Your task to perform on an android device: snooze an email in the gmail app Image 0: 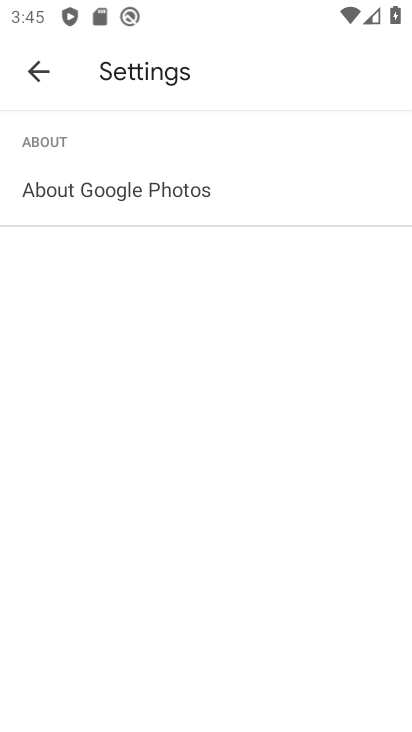
Step 0: press home button
Your task to perform on an android device: snooze an email in the gmail app Image 1: 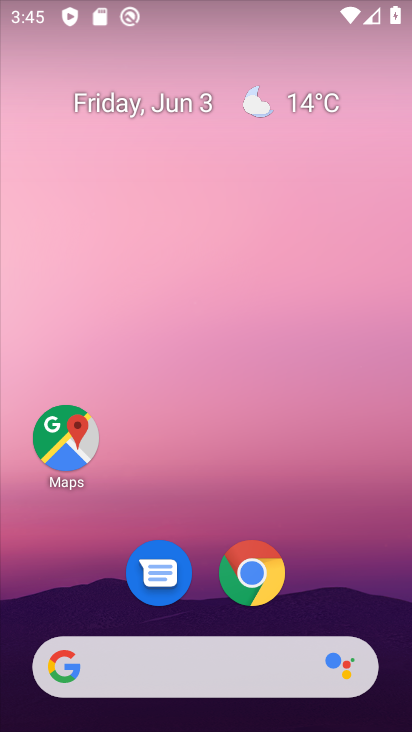
Step 1: drag from (205, 607) to (267, 7)
Your task to perform on an android device: snooze an email in the gmail app Image 2: 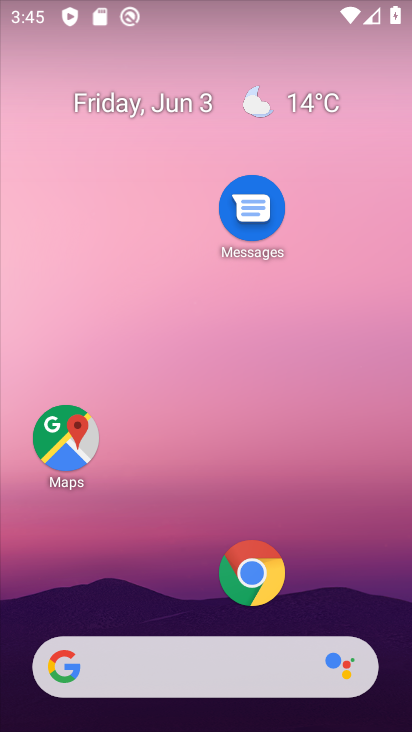
Step 2: click (144, 519)
Your task to perform on an android device: snooze an email in the gmail app Image 3: 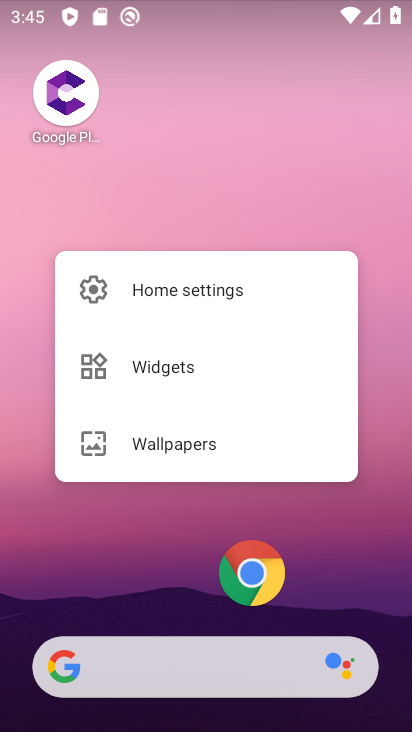
Step 3: drag from (169, 610) to (196, 220)
Your task to perform on an android device: snooze an email in the gmail app Image 4: 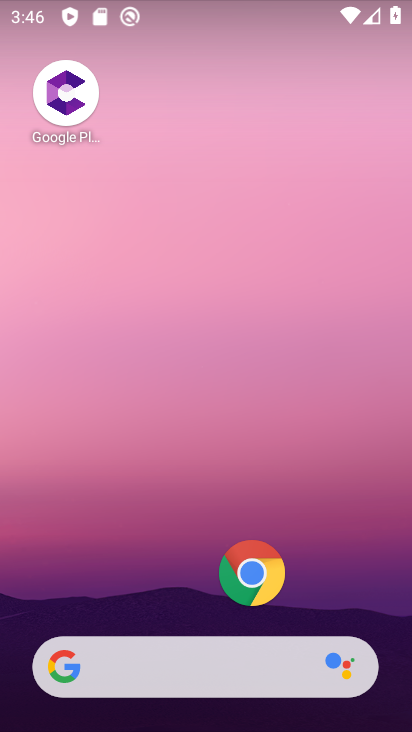
Step 4: drag from (295, 610) to (291, 212)
Your task to perform on an android device: snooze an email in the gmail app Image 5: 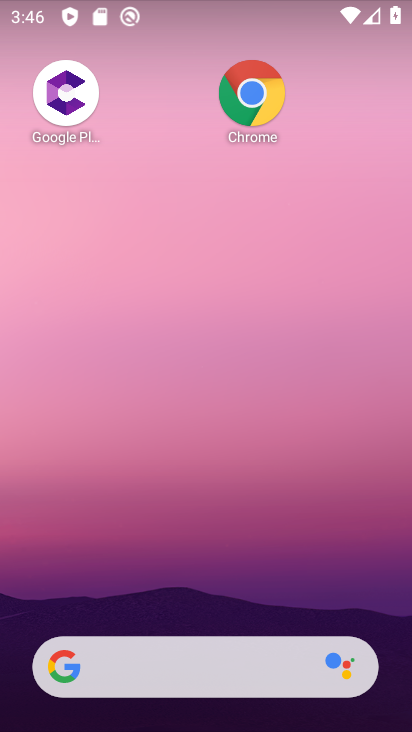
Step 5: click (275, 242)
Your task to perform on an android device: snooze an email in the gmail app Image 6: 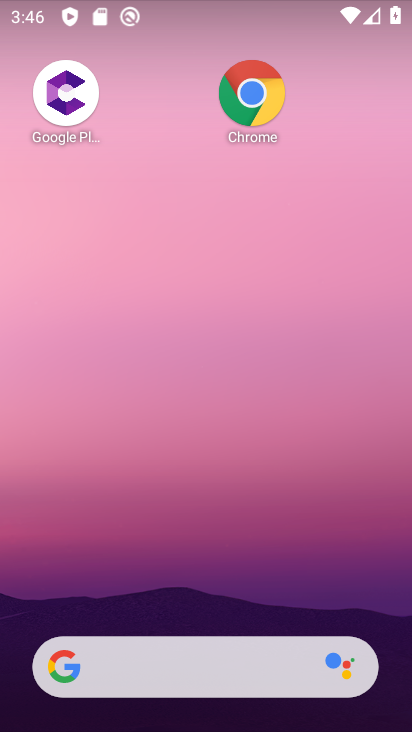
Step 6: drag from (242, 125) to (242, 74)
Your task to perform on an android device: snooze an email in the gmail app Image 7: 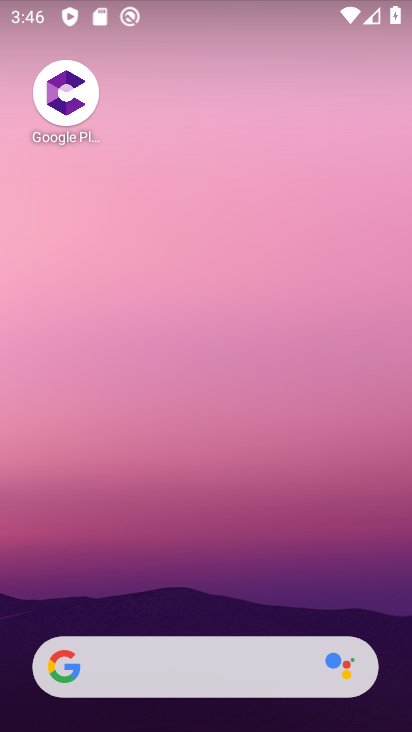
Step 7: drag from (212, 592) to (213, 154)
Your task to perform on an android device: snooze an email in the gmail app Image 8: 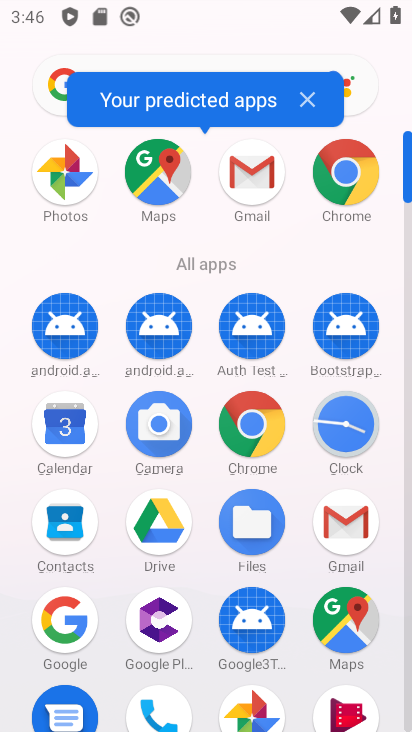
Step 8: click (255, 182)
Your task to perform on an android device: snooze an email in the gmail app Image 9: 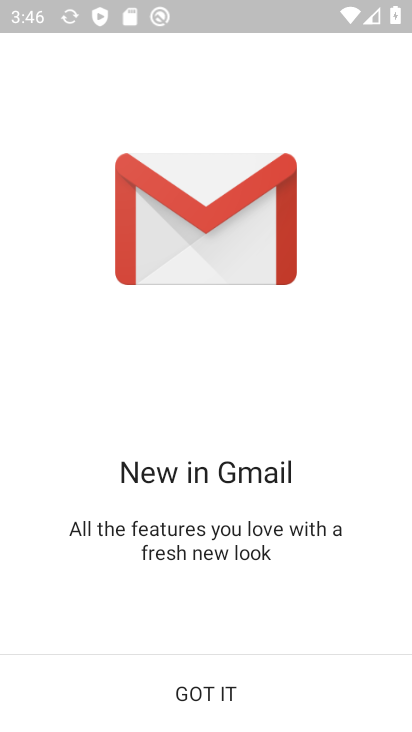
Step 9: click (207, 683)
Your task to perform on an android device: snooze an email in the gmail app Image 10: 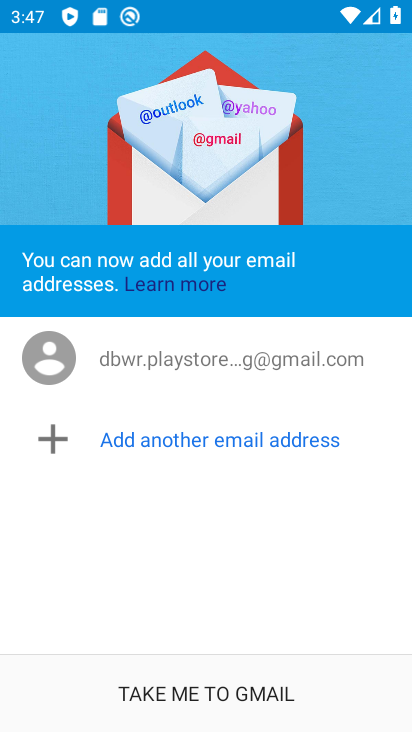
Step 10: click (199, 692)
Your task to perform on an android device: snooze an email in the gmail app Image 11: 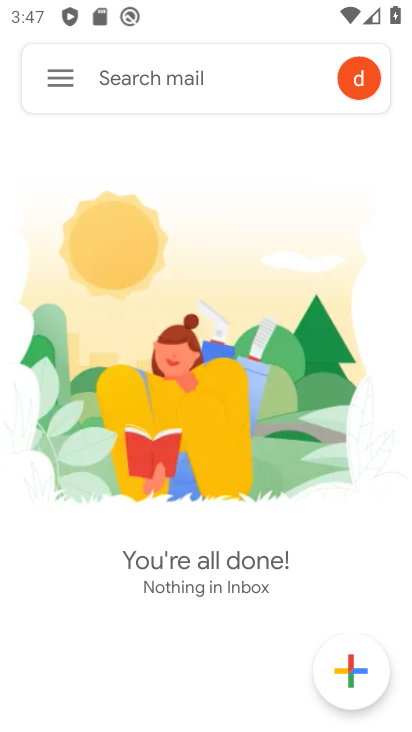
Step 11: click (58, 89)
Your task to perform on an android device: snooze an email in the gmail app Image 12: 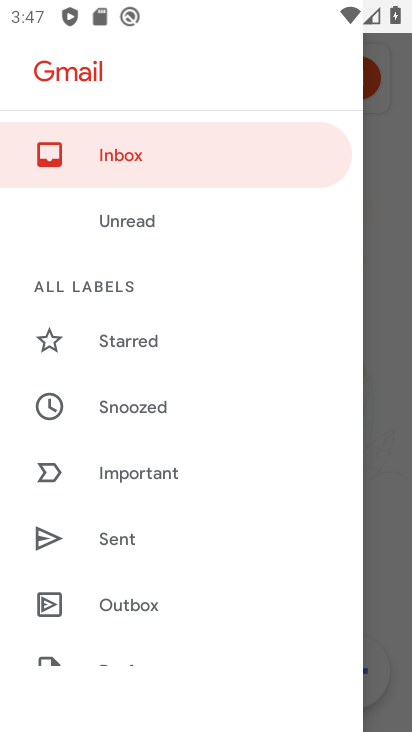
Step 12: drag from (151, 572) to (181, 303)
Your task to perform on an android device: snooze an email in the gmail app Image 13: 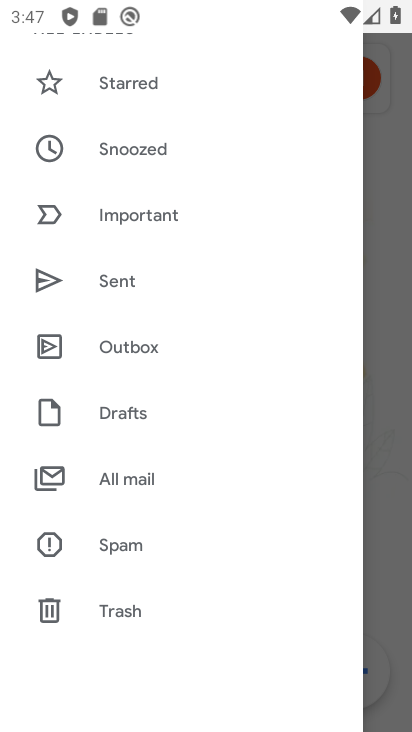
Step 13: click (121, 467)
Your task to perform on an android device: snooze an email in the gmail app Image 14: 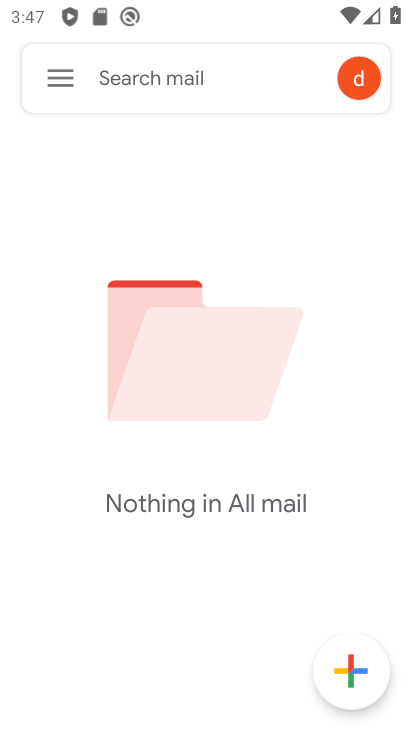
Step 14: task complete